Your task to perform on an android device: Open Google Maps and go to "Timeline" Image 0: 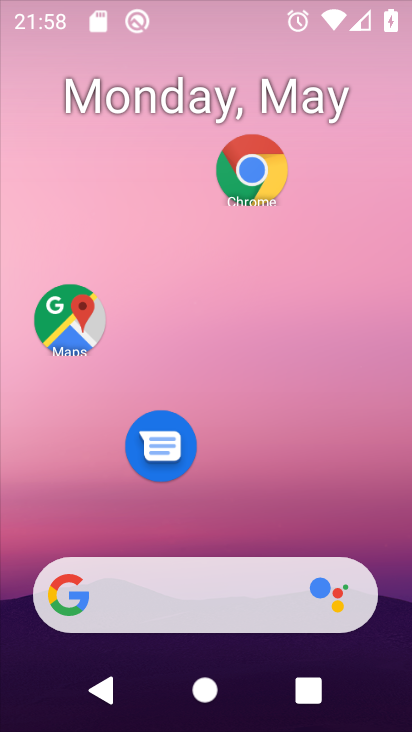
Step 0: press home button
Your task to perform on an android device: Open Google Maps and go to "Timeline" Image 1: 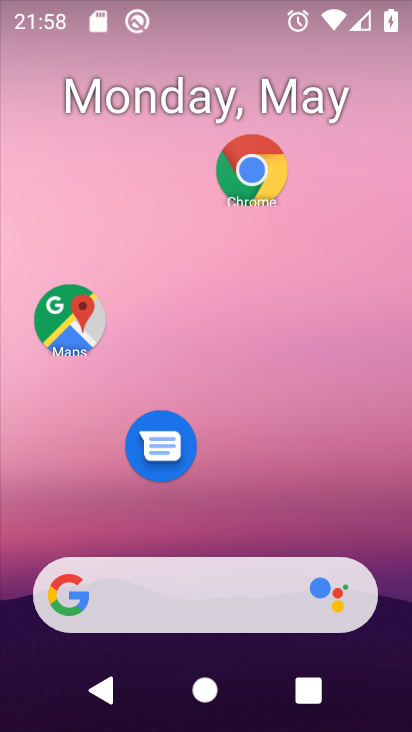
Step 1: click (64, 321)
Your task to perform on an android device: Open Google Maps and go to "Timeline" Image 2: 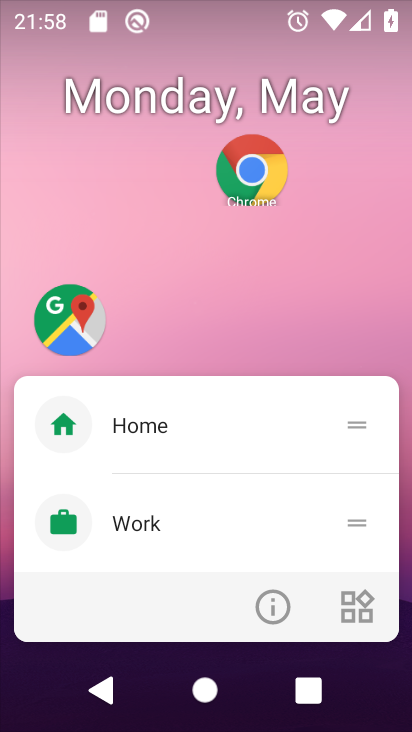
Step 2: click (179, 291)
Your task to perform on an android device: Open Google Maps and go to "Timeline" Image 3: 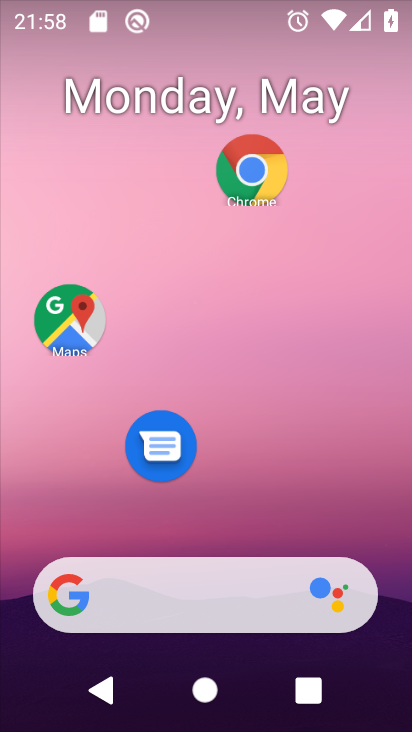
Step 3: click (72, 318)
Your task to perform on an android device: Open Google Maps and go to "Timeline" Image 4: 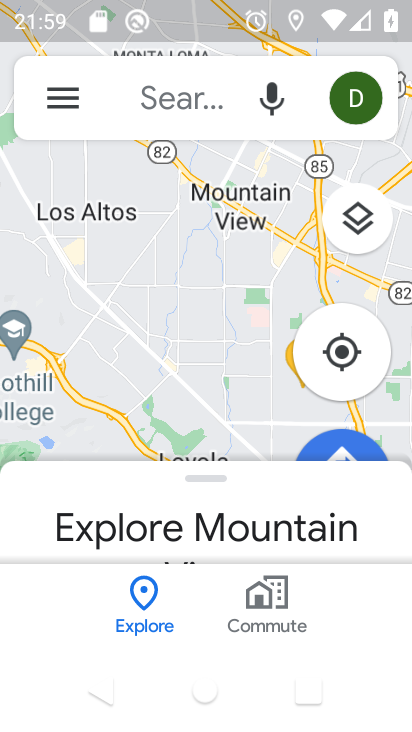
Step 4: click (47, 93)
Your task to perform on an android device: Open Google Maps and go to "Timeline" Image 5: 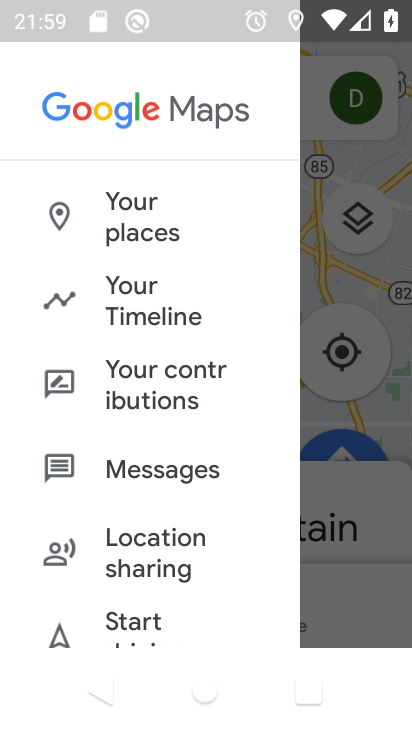
Step 5: click (90, 287)
Your task to perform on an android device: Open Google Maps and go to "Timeline" Image 6: 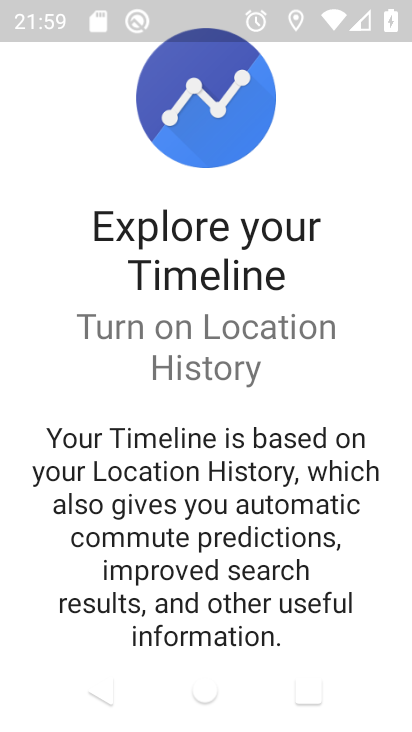
Step 6: drag from (230, 565) to (239, 134)
Your task to perform on an android device: Open Google Maps and go to "Timeline" Image 7: 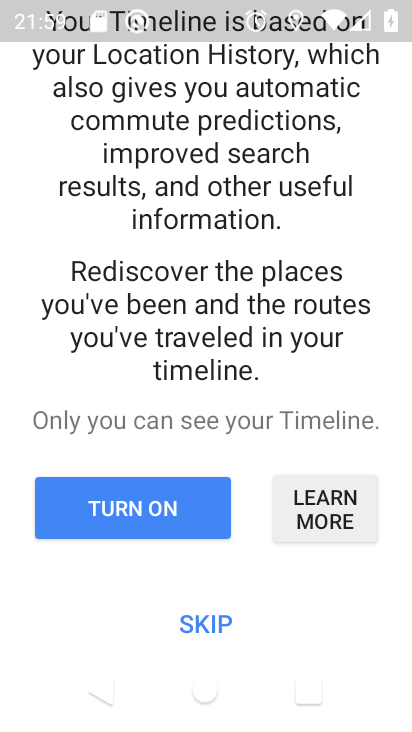
Step 7: click (145, 501)
Your task to perform on an android device: Open Google Maps and go to "Timeline" Image 8: 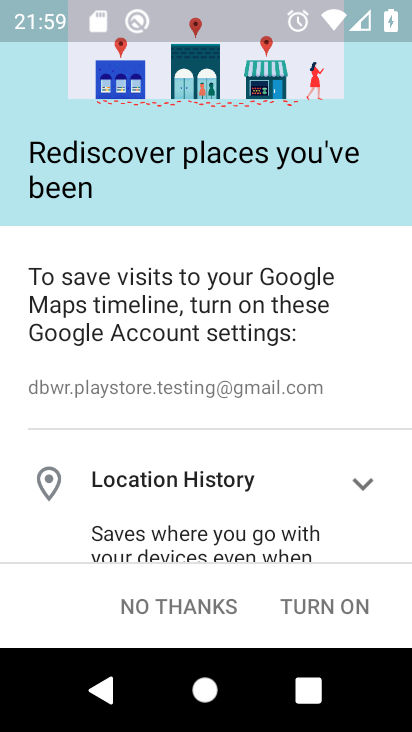
Step 8: drag from (282, 515) to (274, 95)
Your task to perform on an android device: Open Google Maps and go to "Timeline" Image 9: 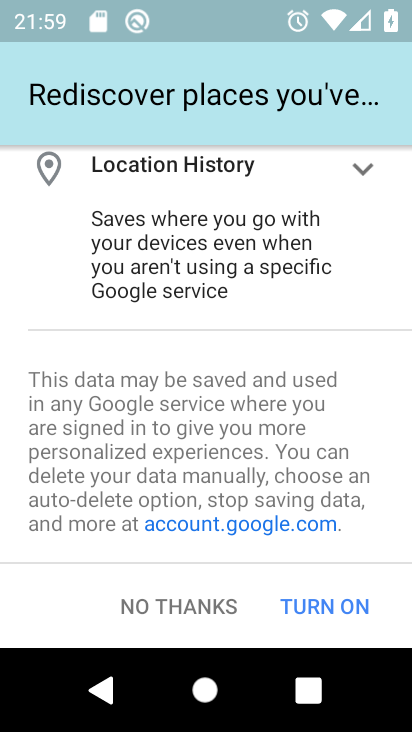
Step 9: click (330, 606)
Your task to perform on an android device: Open Google Maps and go to "Timeline" Image 10: 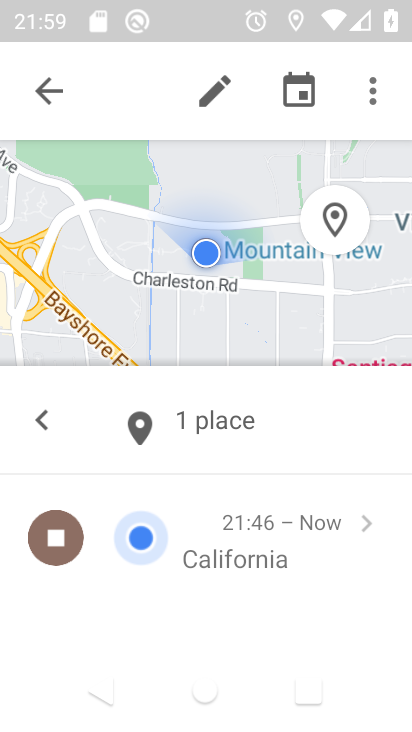
Step 10: task complete